Your task to perform on an android device: toggle location history Image 0: 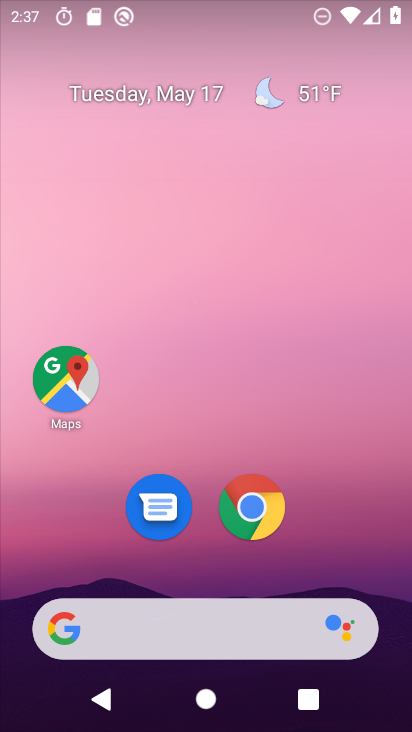
Step 0: drag from (205, 550) to (193, 137)
Your task to perform on an android device: toggle location history Image 1: 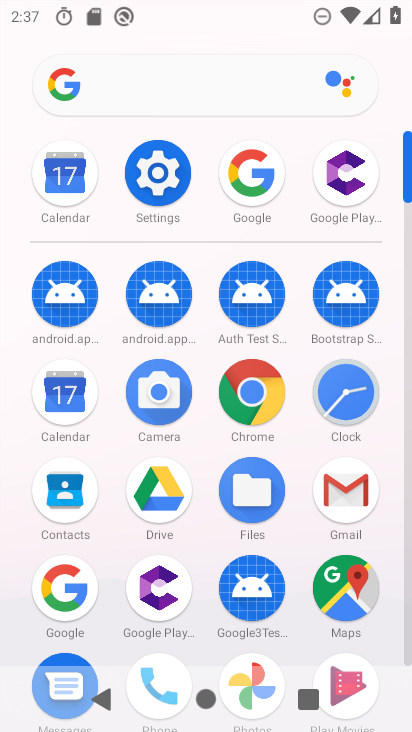
Step 1: click (160, 171)
Your task to perform on an android device: toggle location history Image 2: 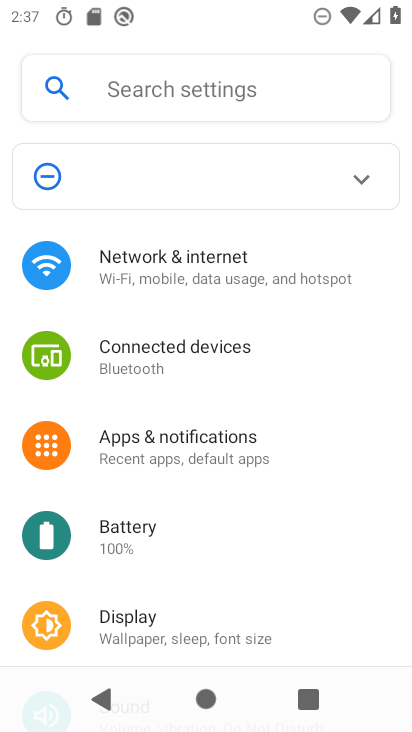
Step 2: drag from (264, 573) to (196, 261)
Your task to perform on an android device: toggle location history Image 3: 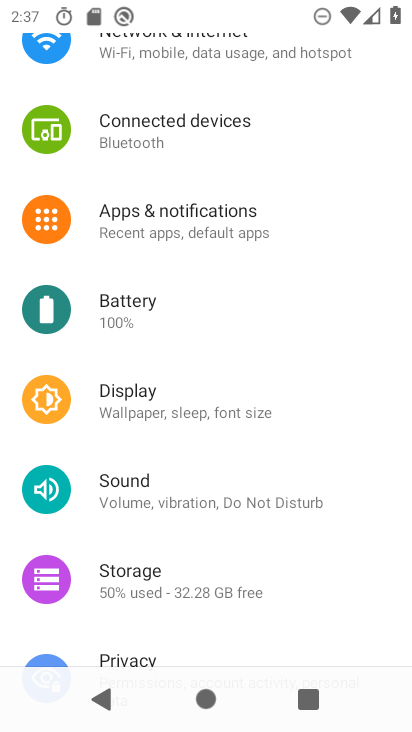
Step 3: drag from (242, 590) to (221, 293)
Your task to perform on an android device: toggle location history Image 4: 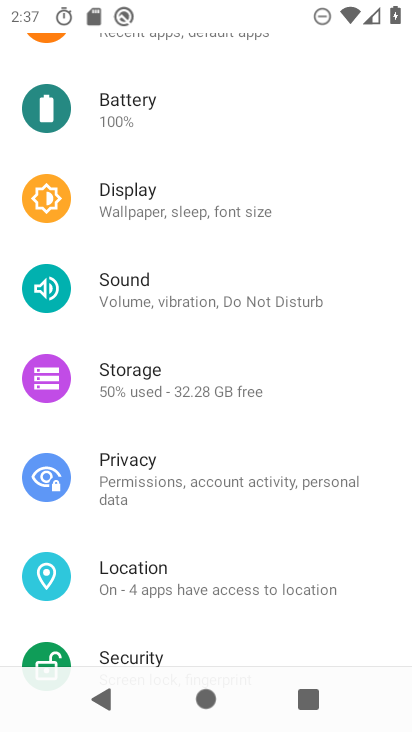
Step 4: click (158, 574)
Your task to perform on an android device: toggle location history Image 5: 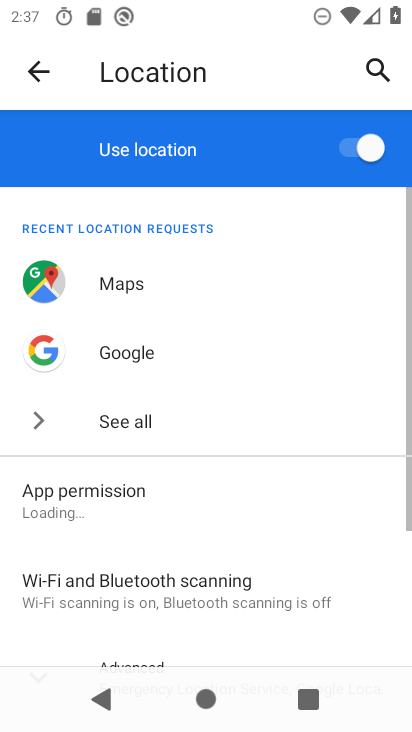
Step 5: drag from (290, 559) to (231, 200)
Your task to perform on an android device: toggle location history Image 6: 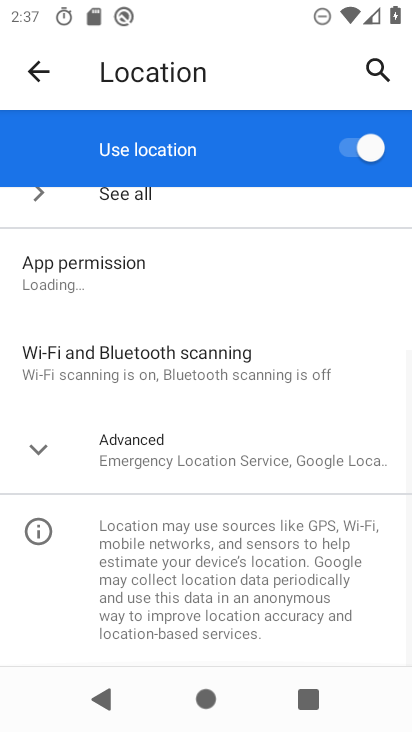
Step 6: click (157, 439)
Your task to perform on an android device: toggle location history Image 7: 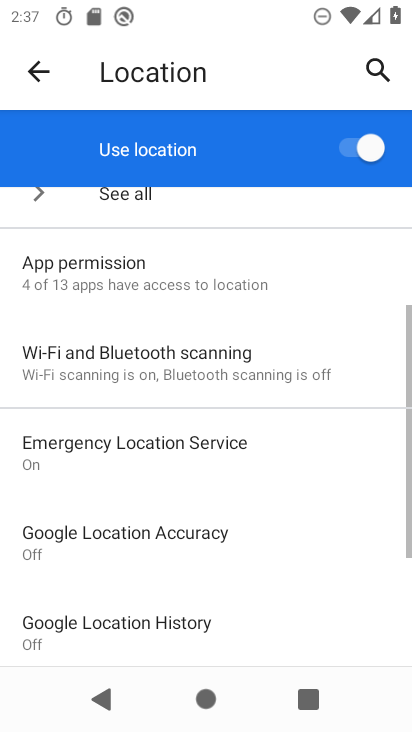
Step 7: drag from (269, 559) to (265, 354)
Your task to perform on an android device: toggle location history Image 8: 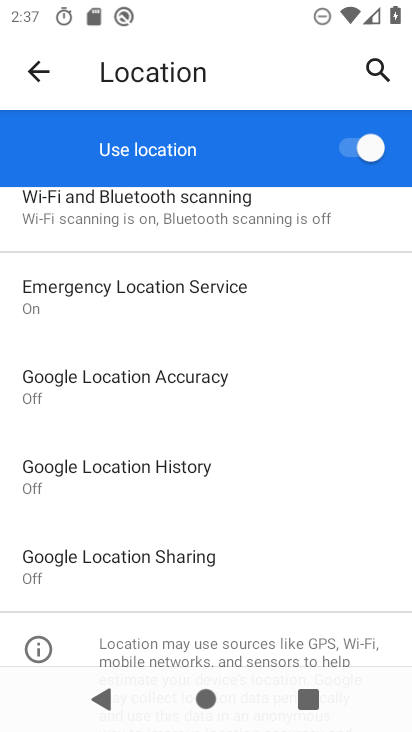
Step 8: click (113, 480)
Your task to perform on an android device: toggle location history Image 9: 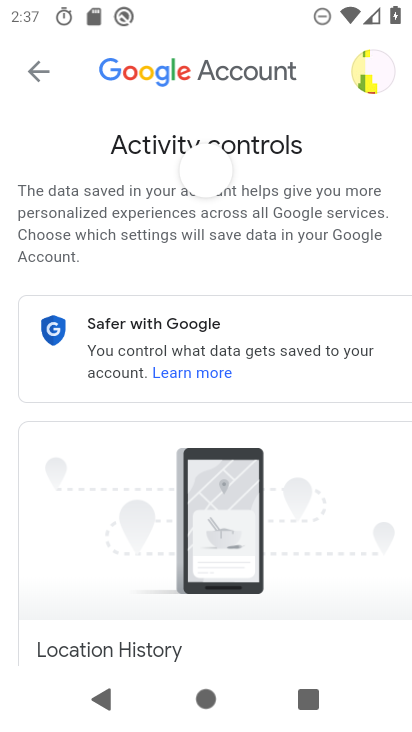
Step 9: drag from (260, 574) to (254, 150)
Your task to perform on an android device: toggle location history Image 10: 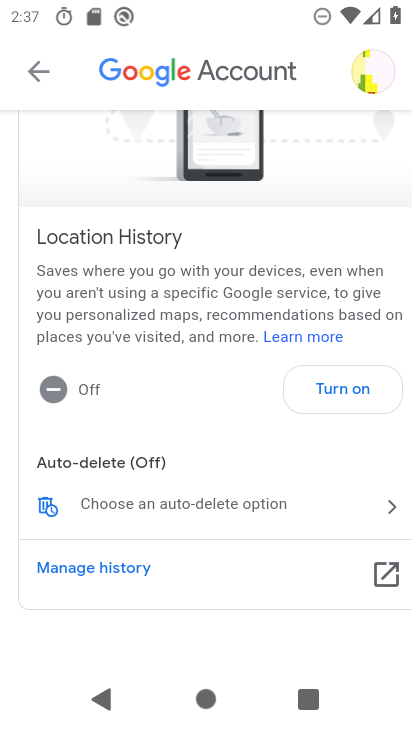
Step 10: click (345, 386)
Your task to perform on an android device: toggle location history Image 11: 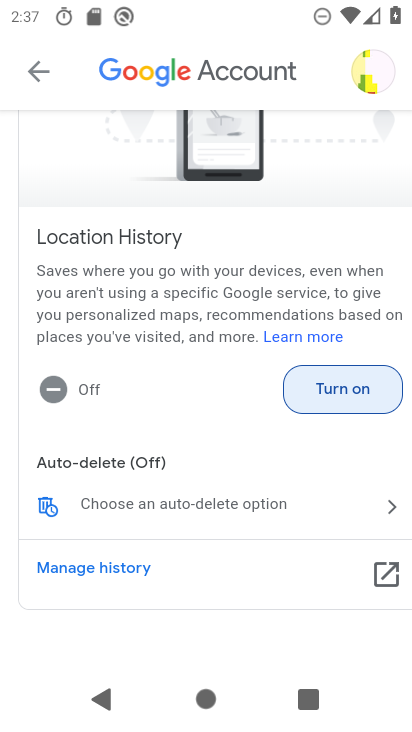
Step 11: click (345, 386)
Your task to perform on an android device: toggle location history Image 12: 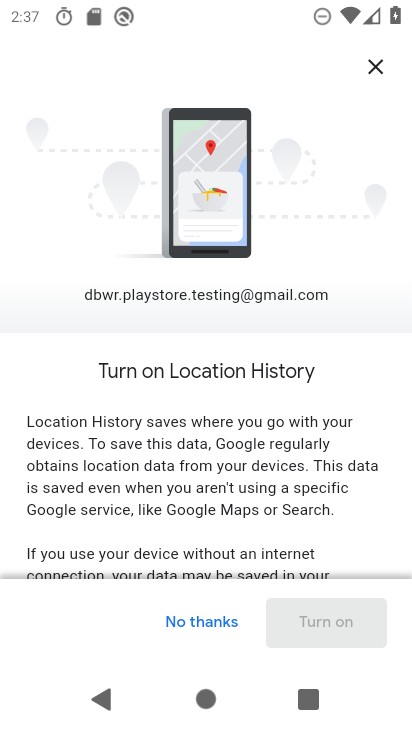
Step 12: drag from (329, 511) to (302, 124)
Your task to perform on an android device: toggle location history Image 13: 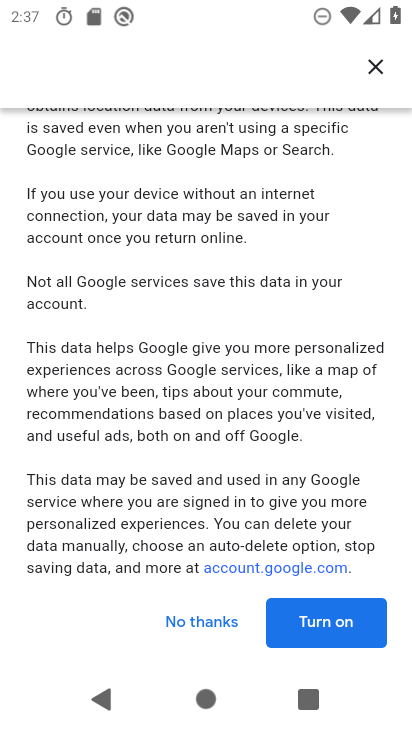
Step 13: drag from (271, 503) to (263, 231)
Your task to perform on an android device: toggle location history Image 14: 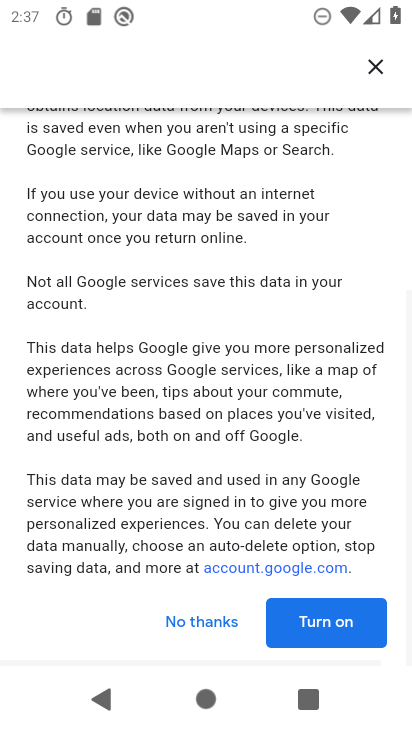
Step 14: click (319, 634)
Your task to perform on an android device: toggle location history Image 15: 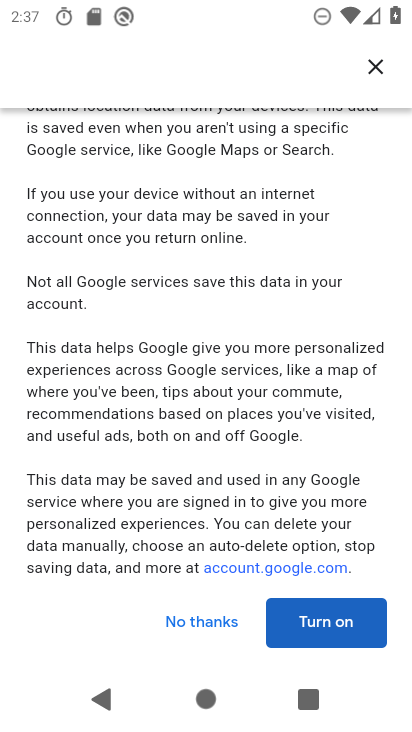
Step 15: click (324, 625)
Your task to perform on an android device: toggle location history Image 16: 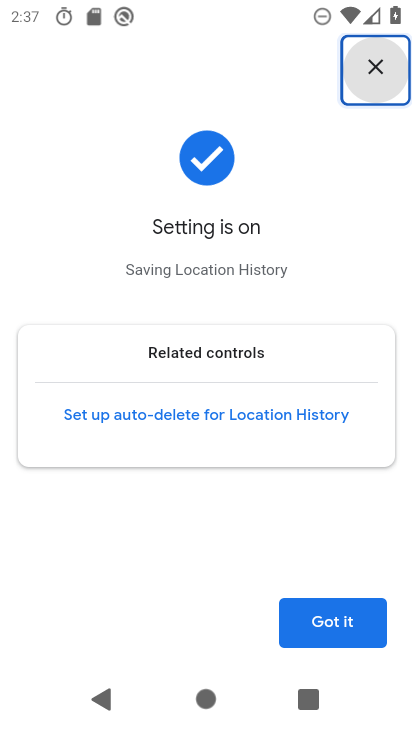
Step 16: click (324, 625)
Your task to perform on an android device: toggle location history Image 17: 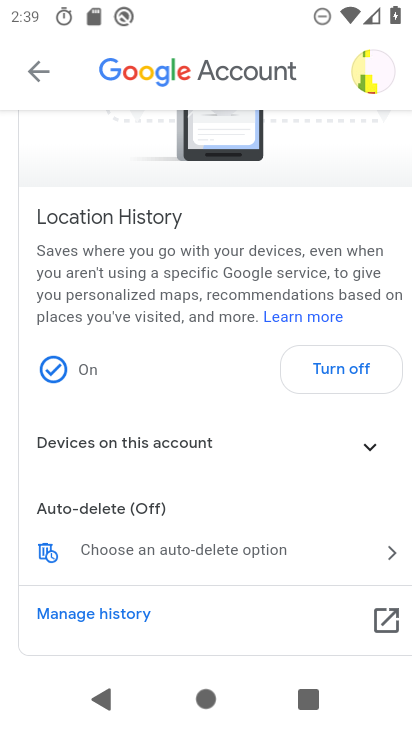
Step 17: task complete